Your task to perform on an android device: Open privacy settings Image 0: 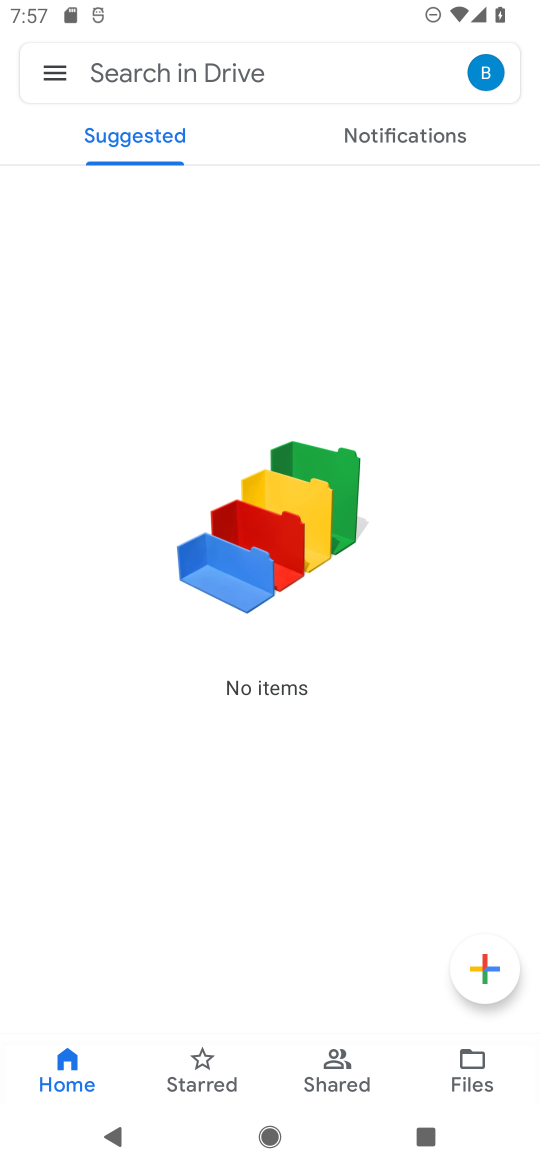
Step 0: press home button
Your task to perform on an android device: Open privacy settings Image 1: 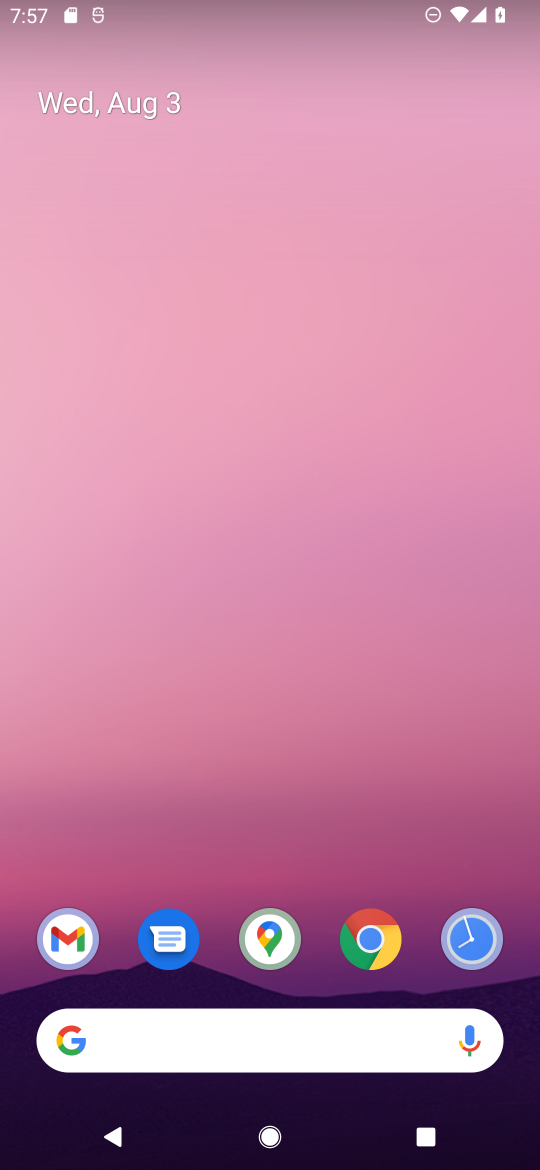
Step 1: drag from (428, 865) to (357, 13)
Your task to perform on an android device: Open privacy settings Image 2: 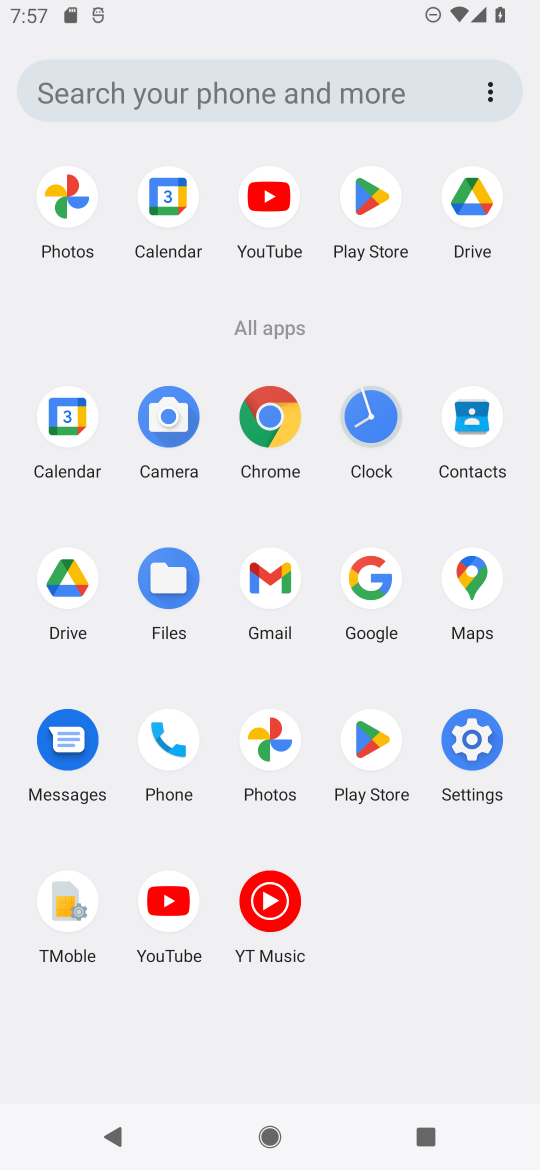
Step 2: click (486, 731)
Your task to perform on an android device: Open privacy settings Image 3: 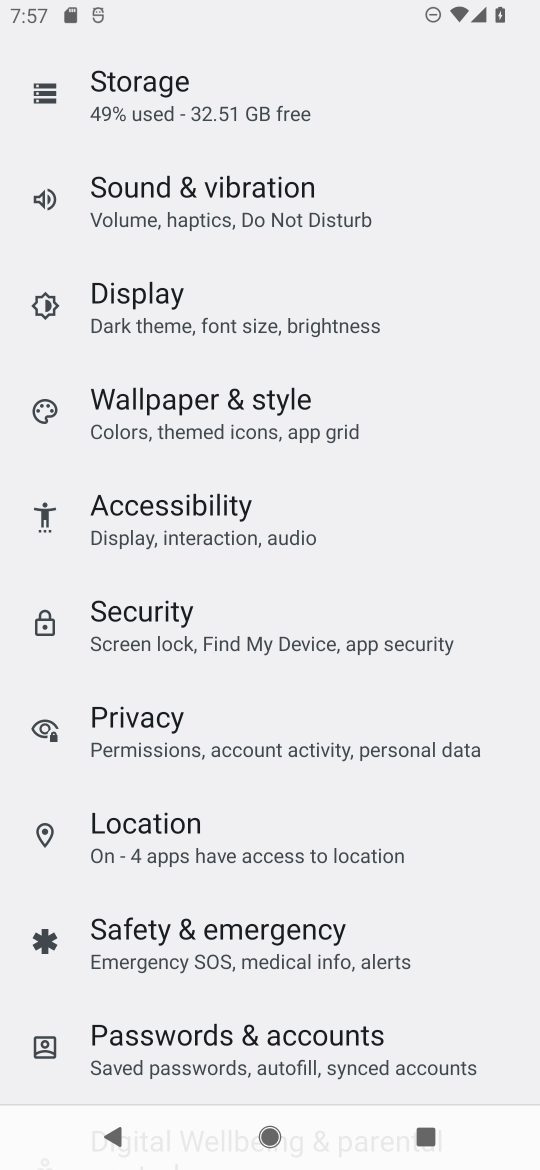
Step 3: drag from (434, 1036) to (289, 267)
Your task to perform on an android device: Open privacy settings Image 4: 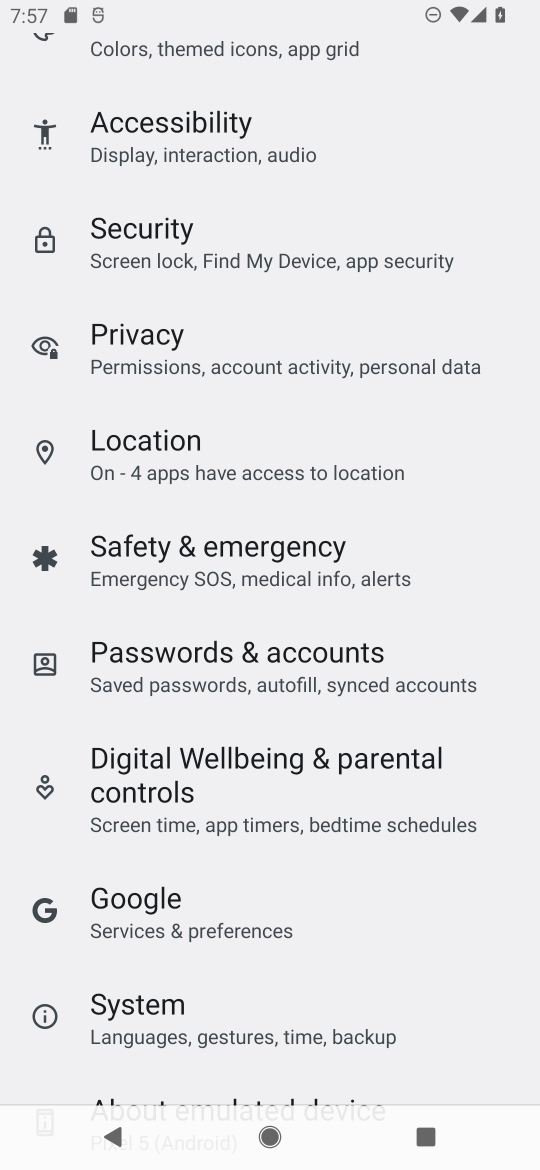
Step 4: click (293, 392)
Your task to perform on an android device: Open privacy settings Image 5: 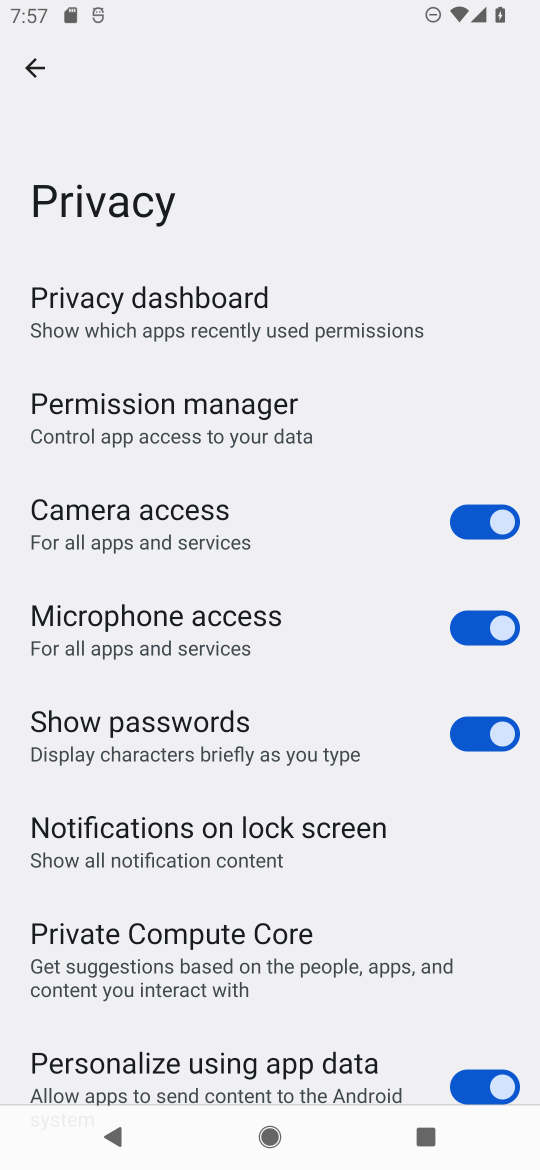
Step 5: task complete